Your task to perform on an android device: delete location history Image 0: 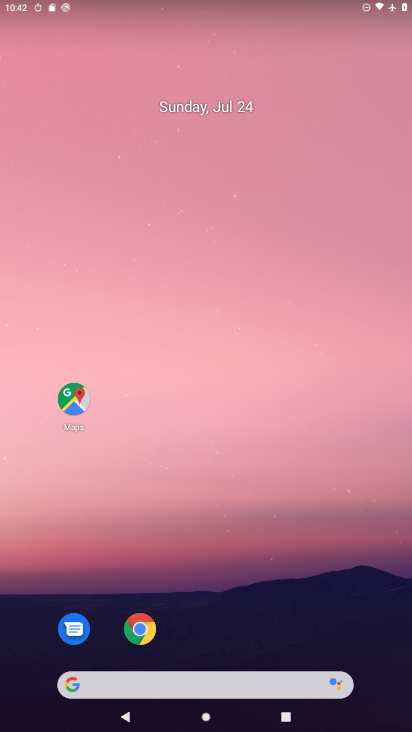
Step 0: drag from (203, 624) to (221, 181)
Your task to perform on an android device: delete location history Image 1: 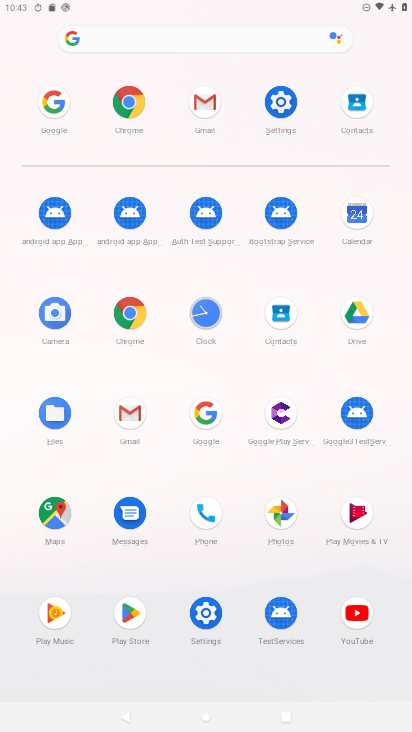
Step 1: click (293, 120)
Your task to perform on an android device: delete location history Image 2: 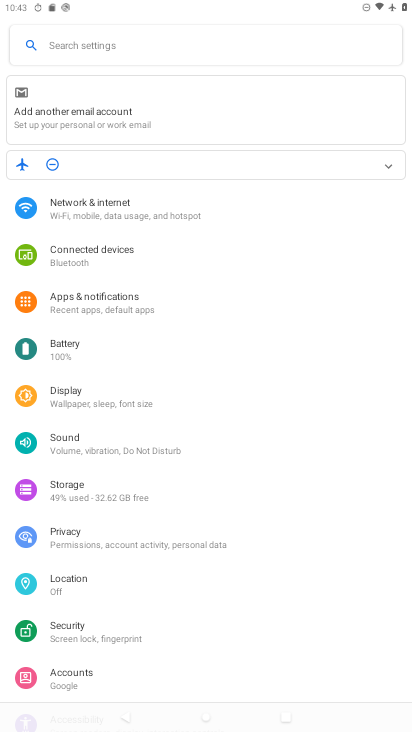
Step 2: drag from (123, 592) to (116, 378)
Your task to perform on an android device: delete location history Image 3: 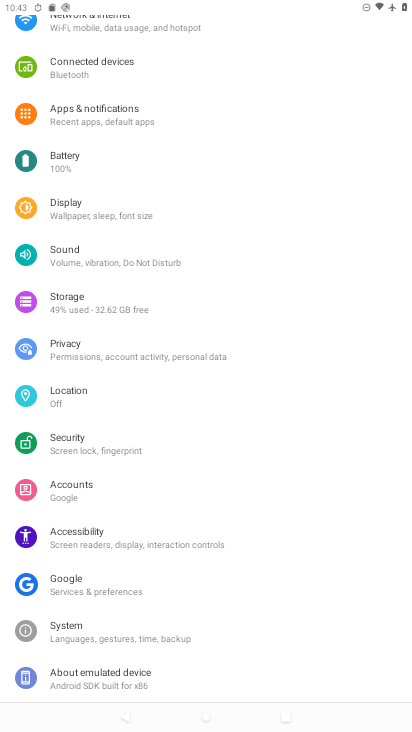
Step 3: click (86, 403)
Your task to perform on an android device: delete location history Image 4: 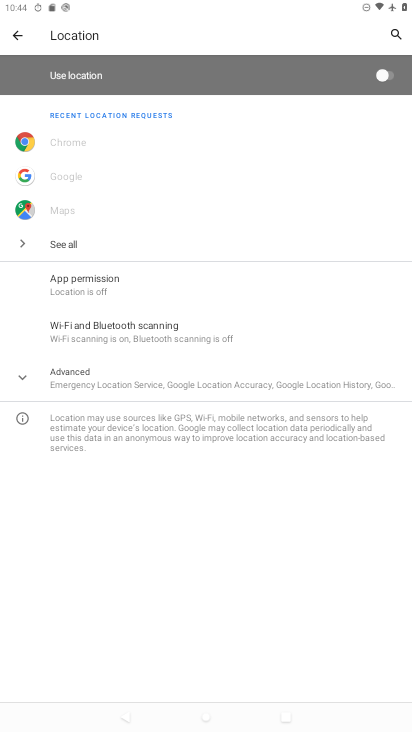
Step 4: click (162, 390)
Your task to perform on an android device: delete location history Image 5: 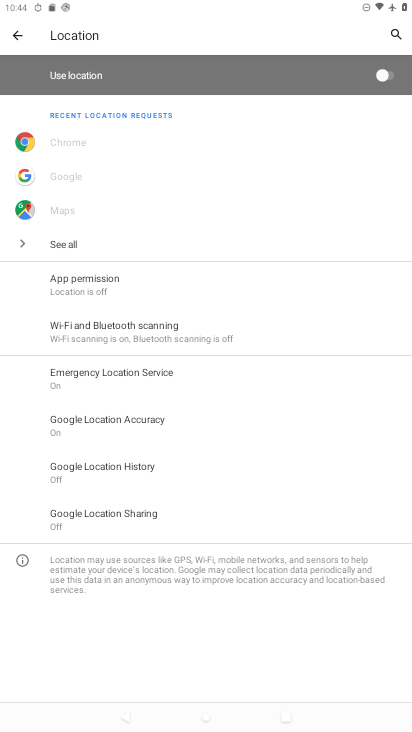
Step 5: click (153, 472)
Your task to perform on an android device: delete location history Image 6: 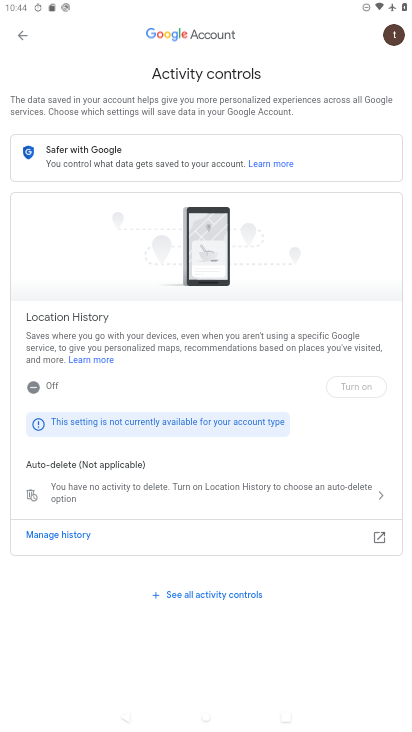
Step 6: click (122, 493)
Your task to perform on an android device: delete location history Image 7: 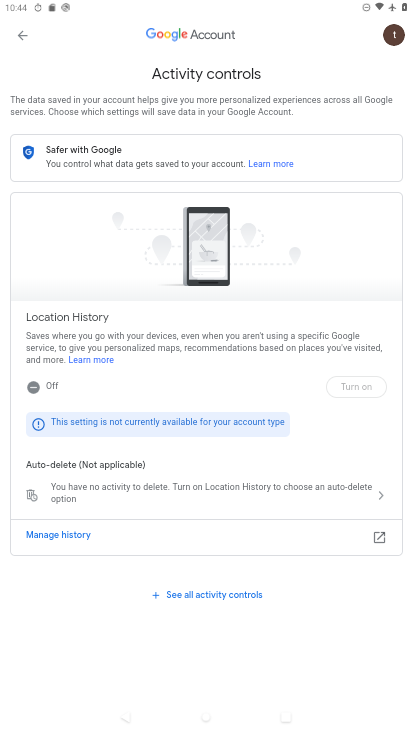
Step 7: task complete